Your task to perform on an android device: delete browsing data in the chrome app Image 0: 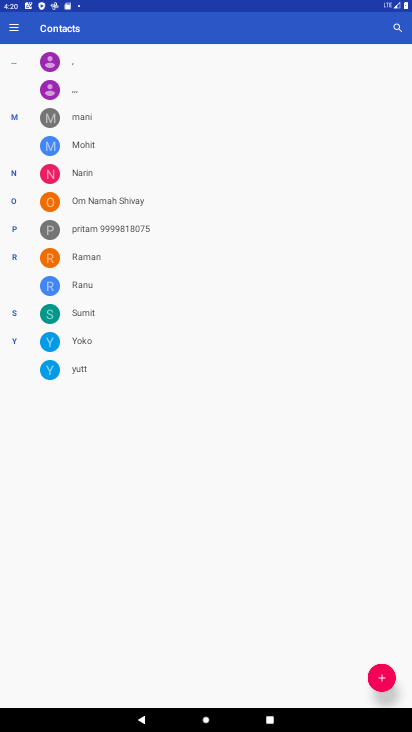
Step 0: press home button
Your task to perform on an android device: delete browsing data in the chrome app Image 1: 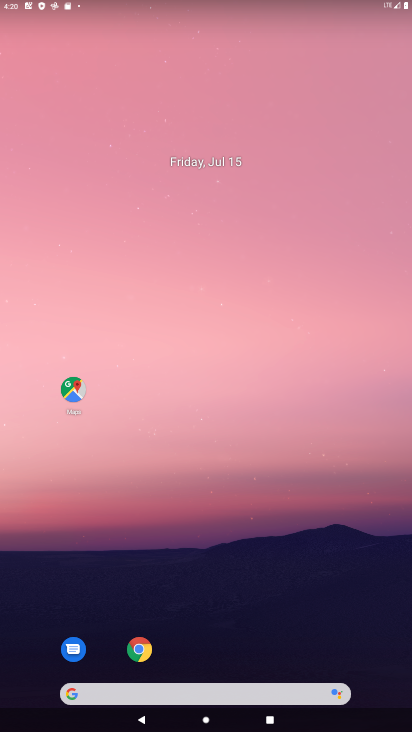
Step 1: drag from (262, 591) to (311, 94)
Your task to perform on an android device: delete browsing data in the chrome app Image 2: 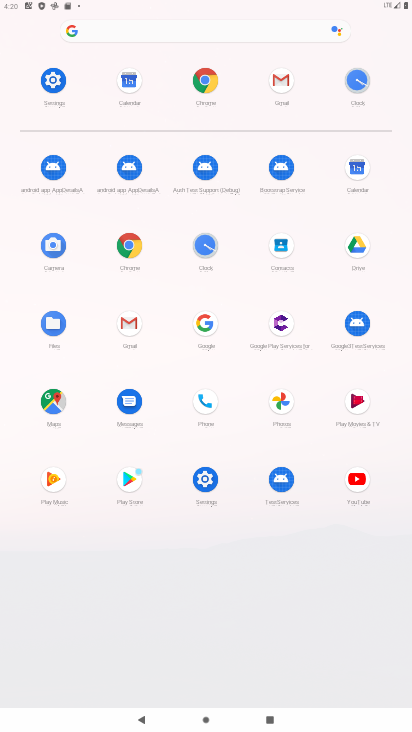
Step 2: click (130, 248)
Your task to perform on an android device: delete browsing data in the chrome app Image 3: 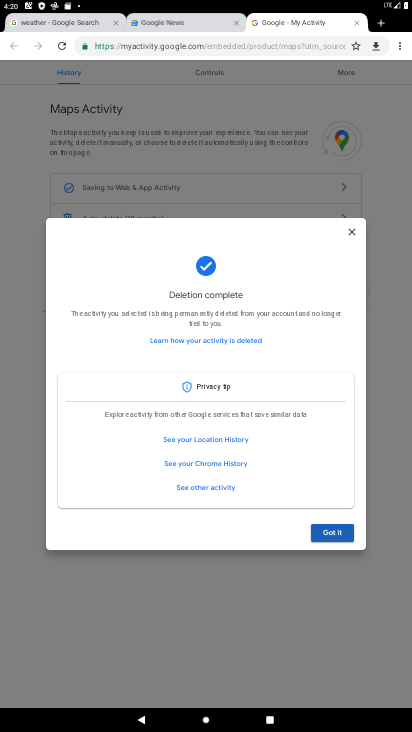
Step 3: task complete